Your task to perform on an android device: toggle priority inbox in the gmail app Image 0: 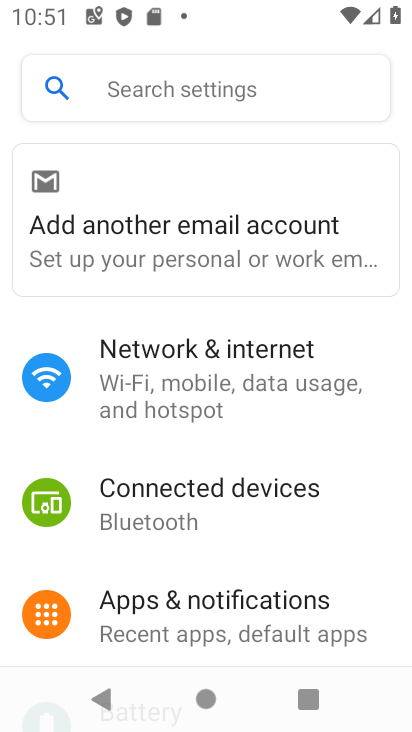
Step 0: press back button
Your task to perform on an android device: toggle priority inbox in the gmail app Image 1: 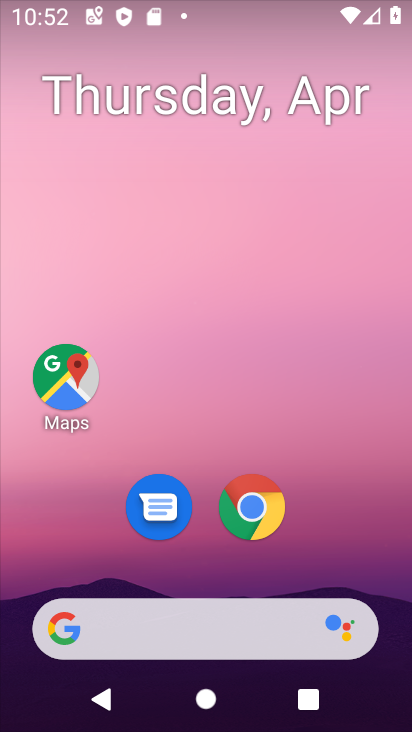
Step 1: drag from (106, 599) to (186, 94)
Your task to perform on an android device: toggle priority inbox in the gmail app Image 2: 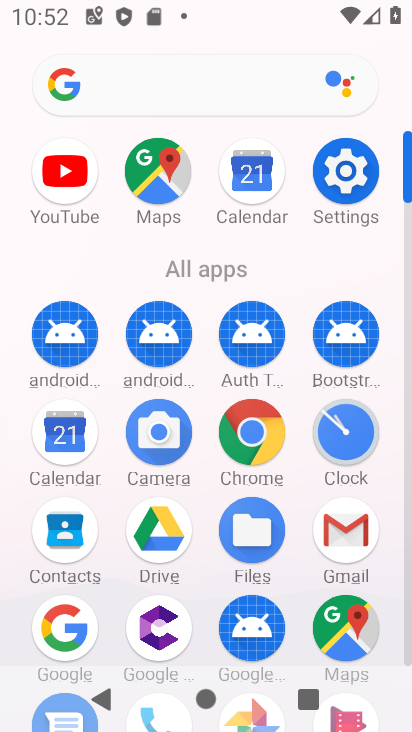
Step 2: drag from (142, 665) to (189, 393)
Your task to perform on an android device: toggle priority inbox in the gmail app Image 3: 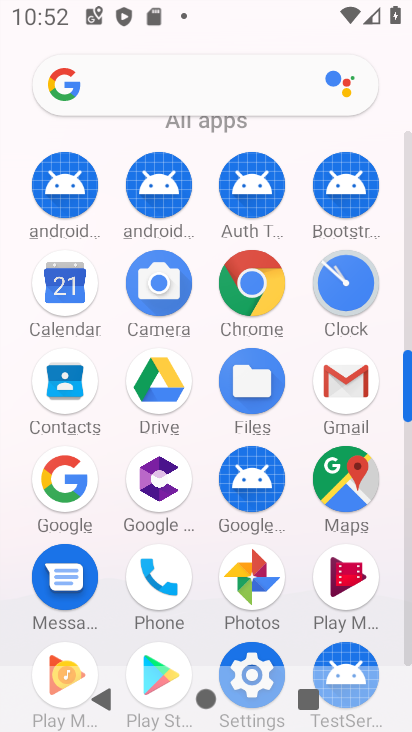
Step 3: click (339, 376)
Your task to perform on an android device: toggle priority inbox in the gmail app Image 4: 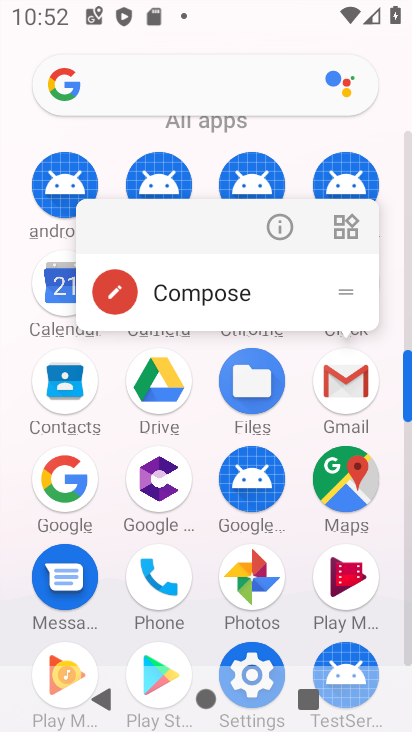
Step 4: click (339, 376)
Your task to perform on an android device: toggle priority inbox in the gmail app Image 5: 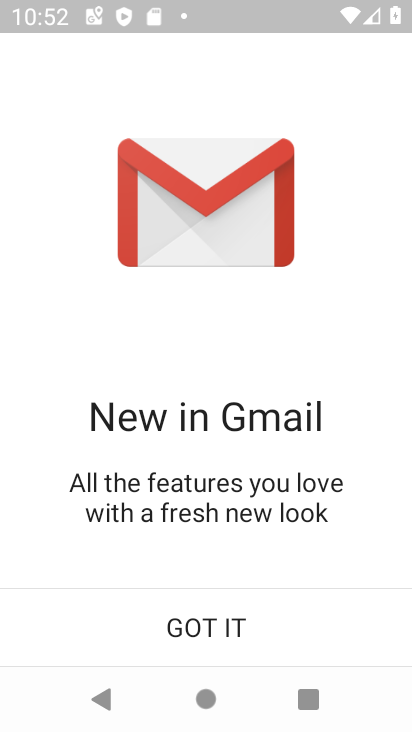
Step 5: click (198, 631)
Your task to perform on an android device: toggle priority inbox in the gmail app Image 6: 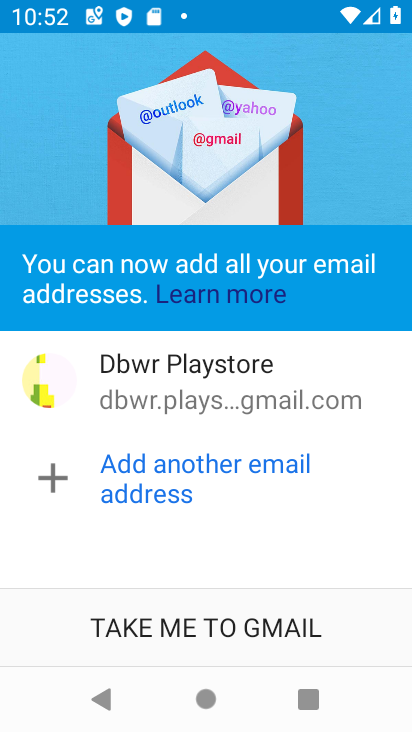
Step 6: click (196, 631)
Your task to perform on an android device: toggle priority inbox in the gmail app Image 7: 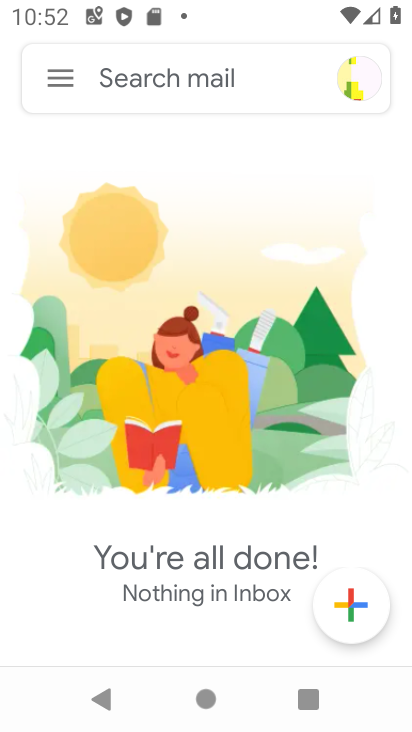
Step 7: click (63, 78)
Your task to perform on an android device: toggle priority inbox in the gmail app Image 8: 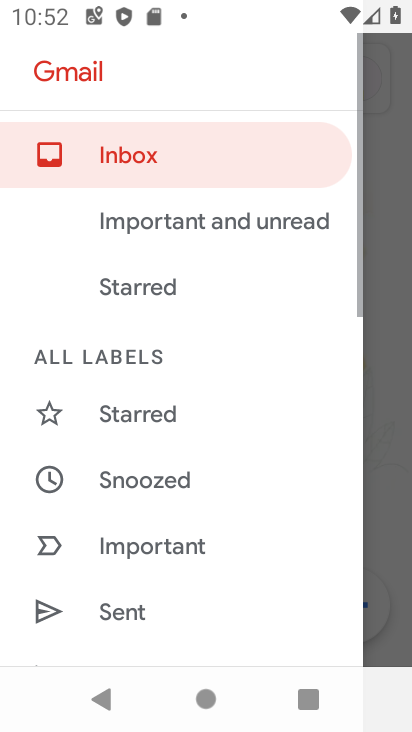
Step 8: drag from (106, 642) to (229, 200)
Your task to perform on an android device: toggle priority inbox in the gmail app Image 9: 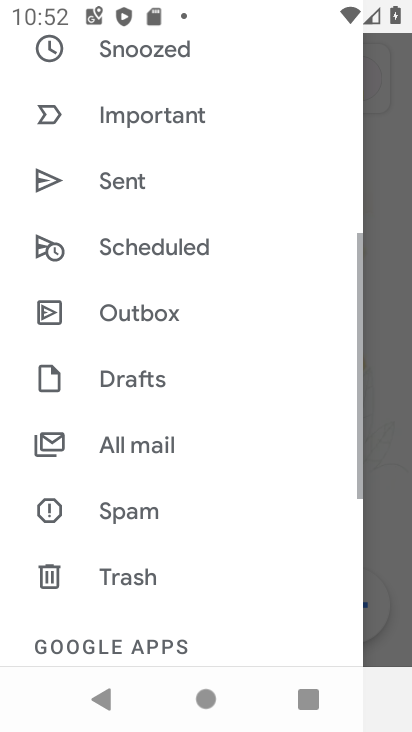
Step 9: drag from (123, 643) to (232, 202)
Your task to perform on an android device: toggle priority inbox in the gmail app Image 10: 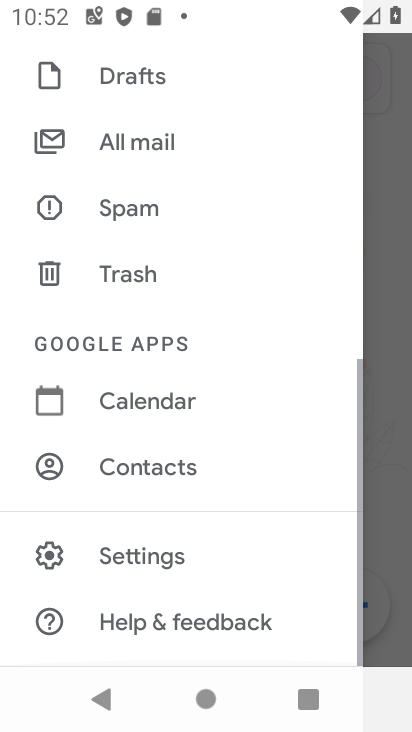
Step 10: click (152, 570)
Your task to perform on an android device: toggle priority inbox in the gmail app Image 11: 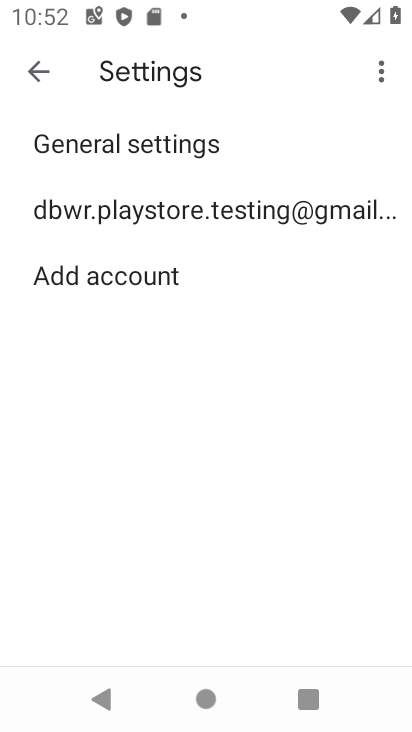
Step 11: click (215, 215)
Your task to perform on an android device: toggle priority inbox in the gmail app Image 12: 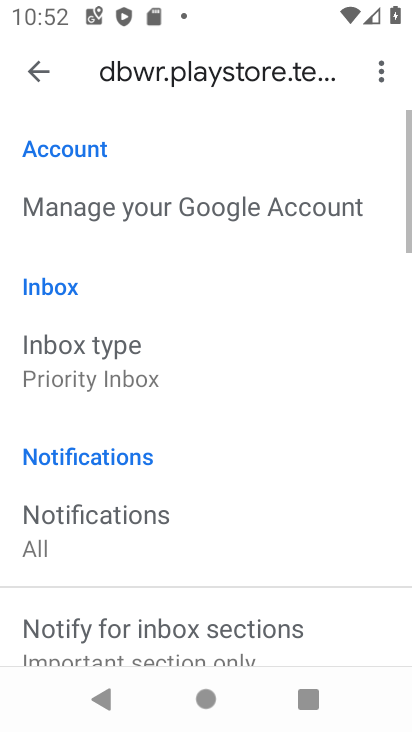
Step 12: click (199, 359)
Your task to perform on an android device: toggle priority inbox in the gmail app Image 13: 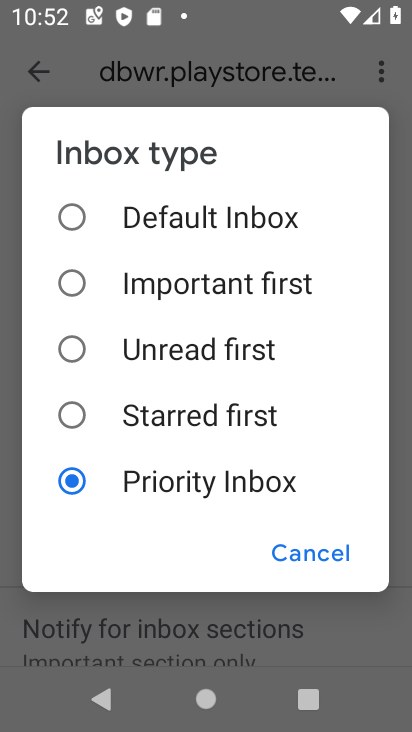
Step 13: click (65, 224)
Your task to perform on an android device: toggle priority inbox in the gmail app Image 14: 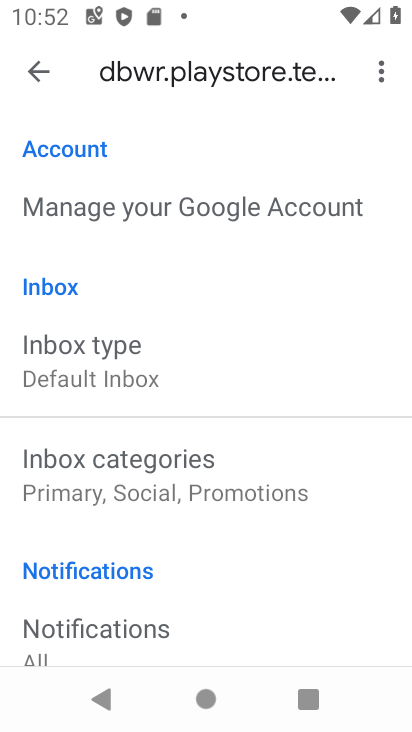
Step 14: task complete